Your task to perform on an android device: Open eBay Image 0: 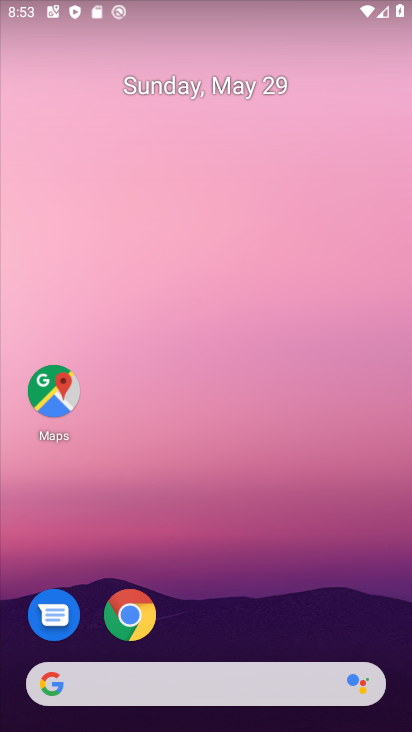
Step 0: click (136, 618)
Your task to perform on an android device: Open eBay Image 1: 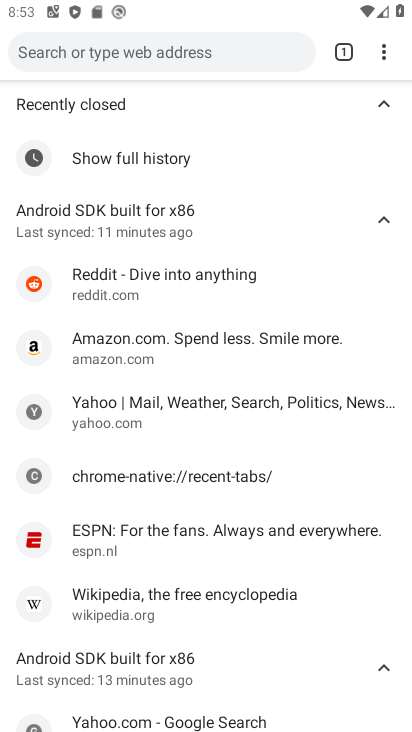
Step 1: click (169, 47)
Your task to perform on an android device: Open eBay Image 2: 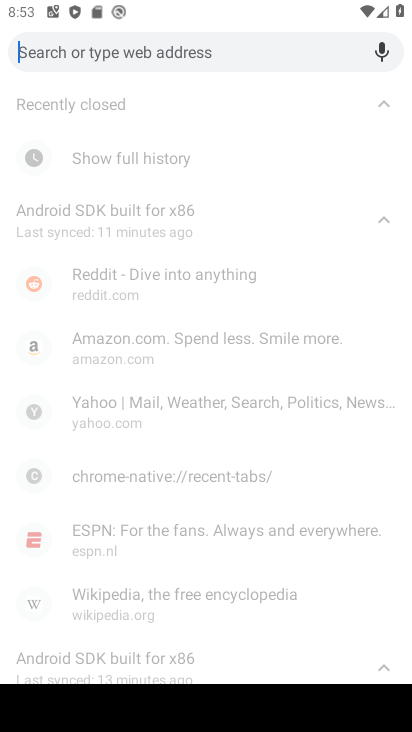
Step 2: type "ebay"
Your task to perform on an android device: Open eBay Image 3: 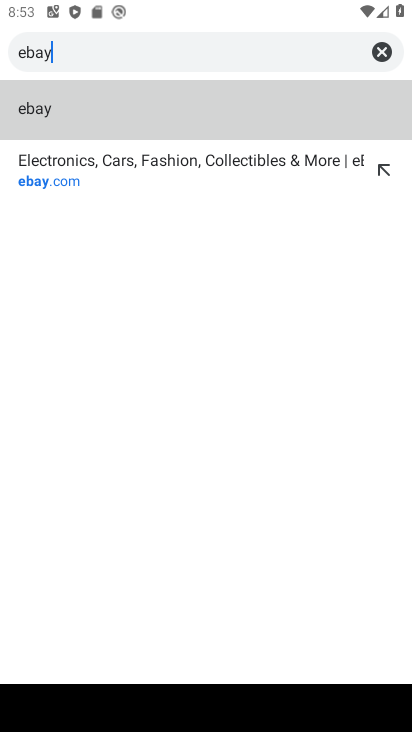
Step 3: click (71, 96)
Your task to perform on an android device: Open eBay Image 4: 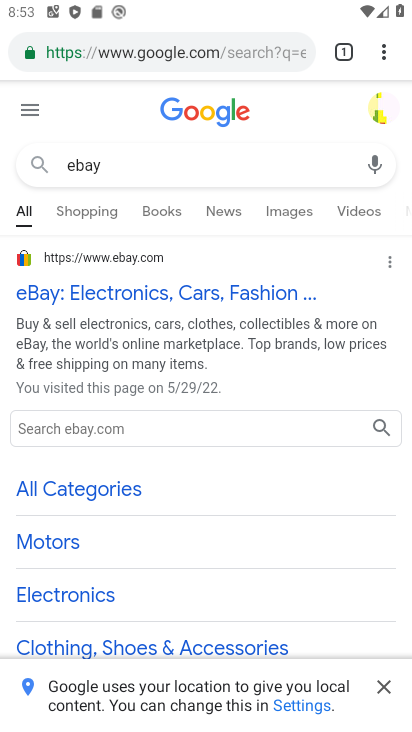
Step 4: click (88, 292)
Your task to perform on an android device: Open eBay Image 5: 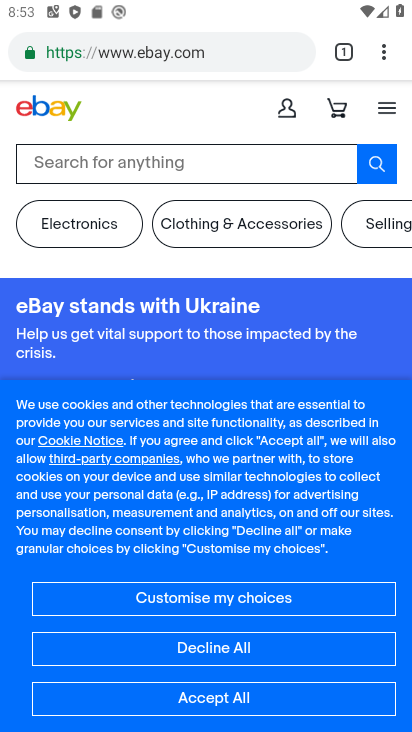
Step 5: task complete